Your task to perform on an android device: Go to ESPN.com Image 0: 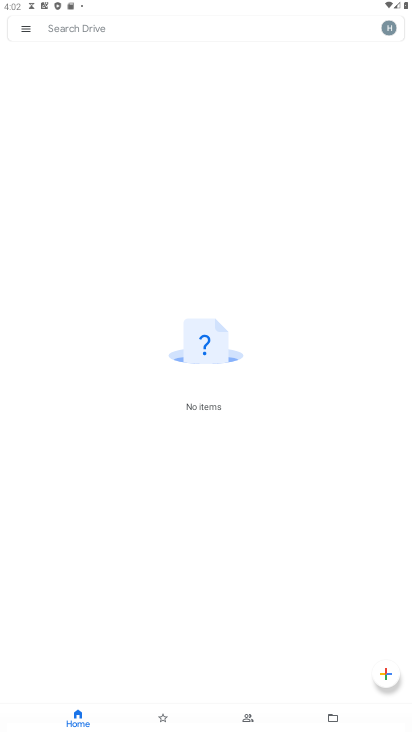
Step 0: press home button
Your task to perform on an android device: Go to ESPN.com Image 1: 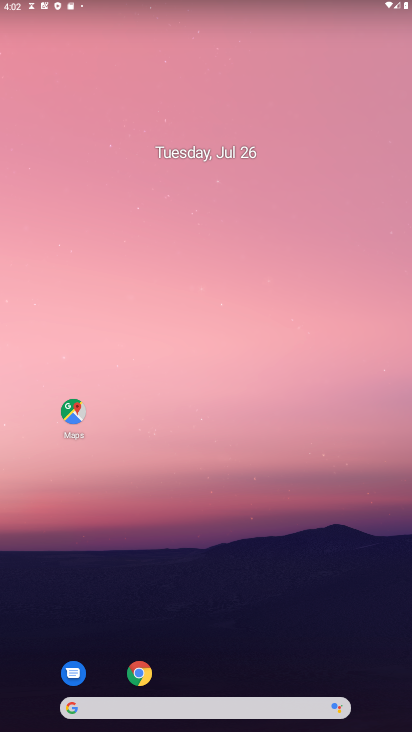
Step 1: click (139, 674)
Your task to perform on an android device: Go to ESPN.com Image 2: 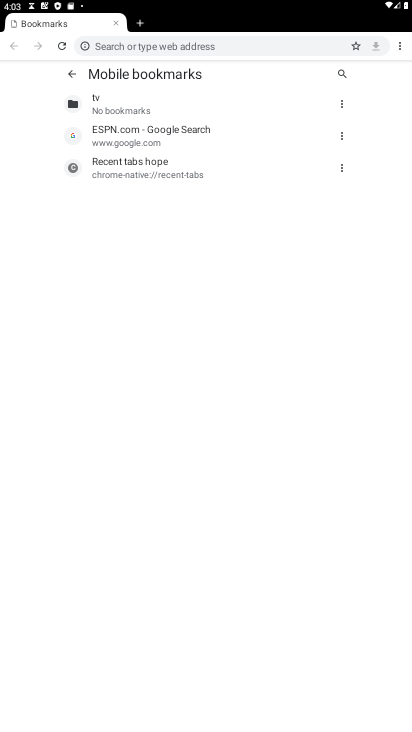
Step 2: click (184, 51)
Your task to perform on an android device: Go to ESPN.com Image 3: 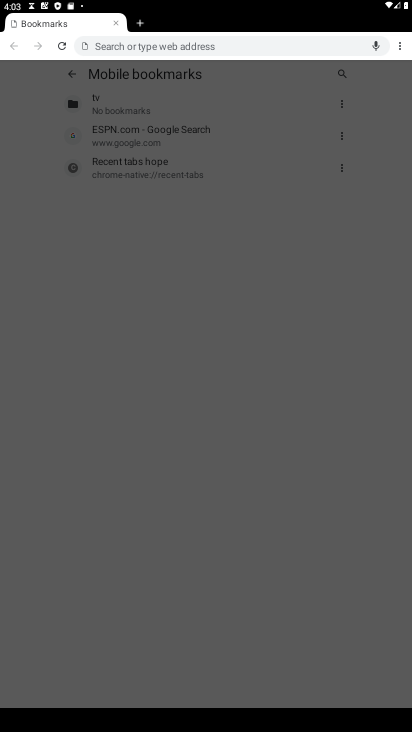
Step 3: type "ESPN.com"
Your task to perform on an android device: Go to ESPN.com Image 4: 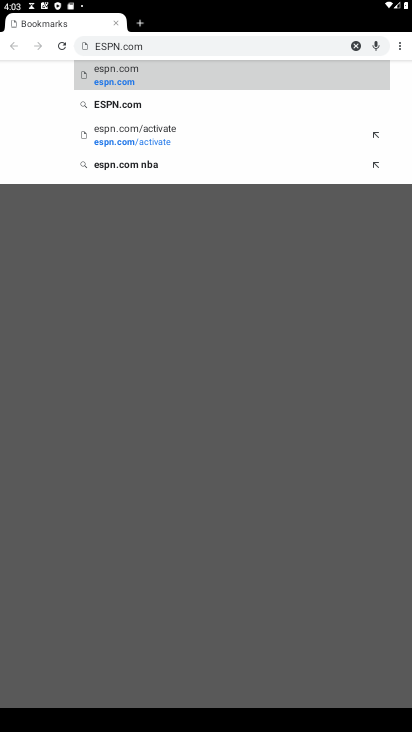
Step 4: click (133, 101)
Your task to perform on an android device: Go to ESPN.com Image 5: 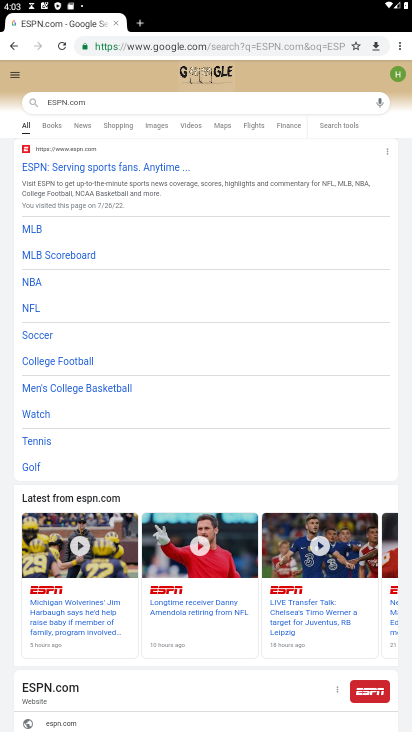
Step 5: click (109, 171)
Your task to perform on an android device: Go to ESPN.com Image 6: 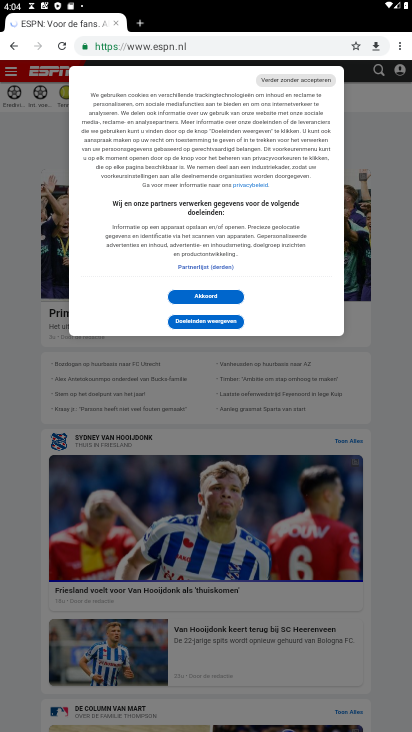
Step 6: click (207, 298)
Your task to perform on an android device: Go to ESPN.com Image 7: 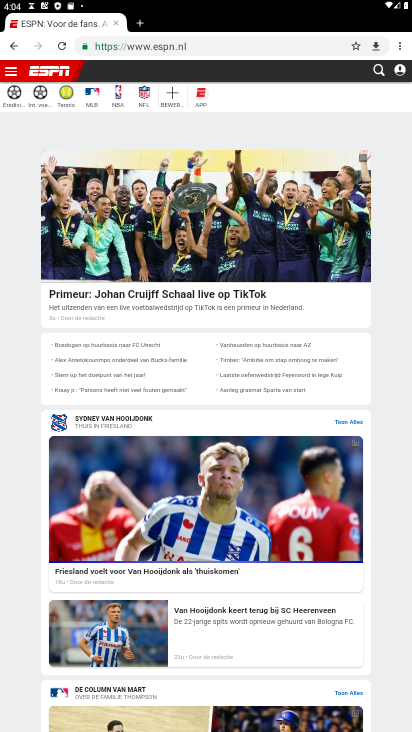
Step 7: task complete